Your task to perform on an android device: Search for a tv stand on Ikea Image 0: 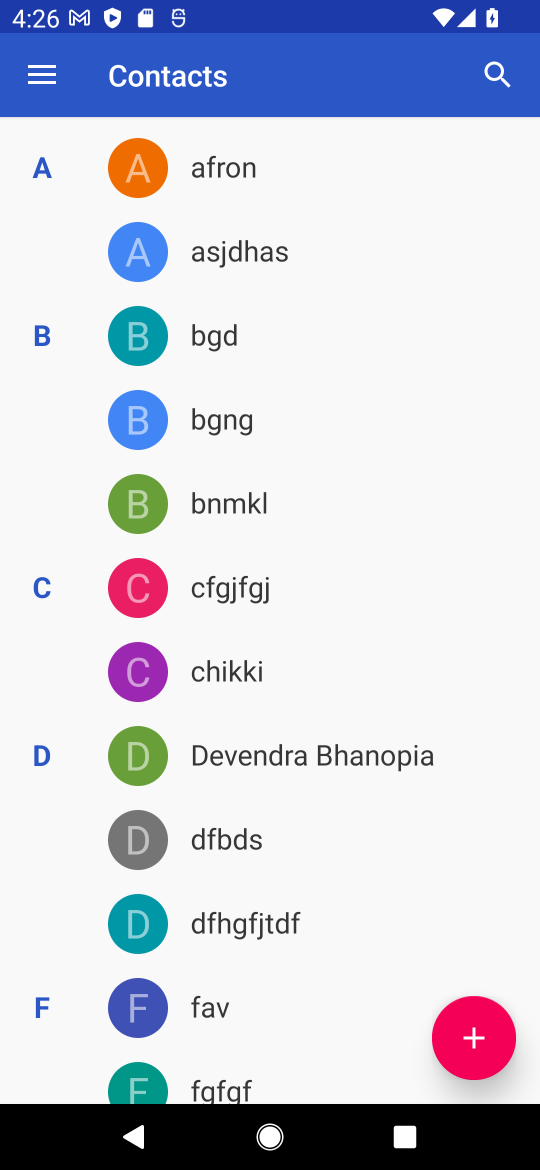
Step 0: press home button
Your task to perform on an android device: Search for a tv stand on Ikea Image 1: 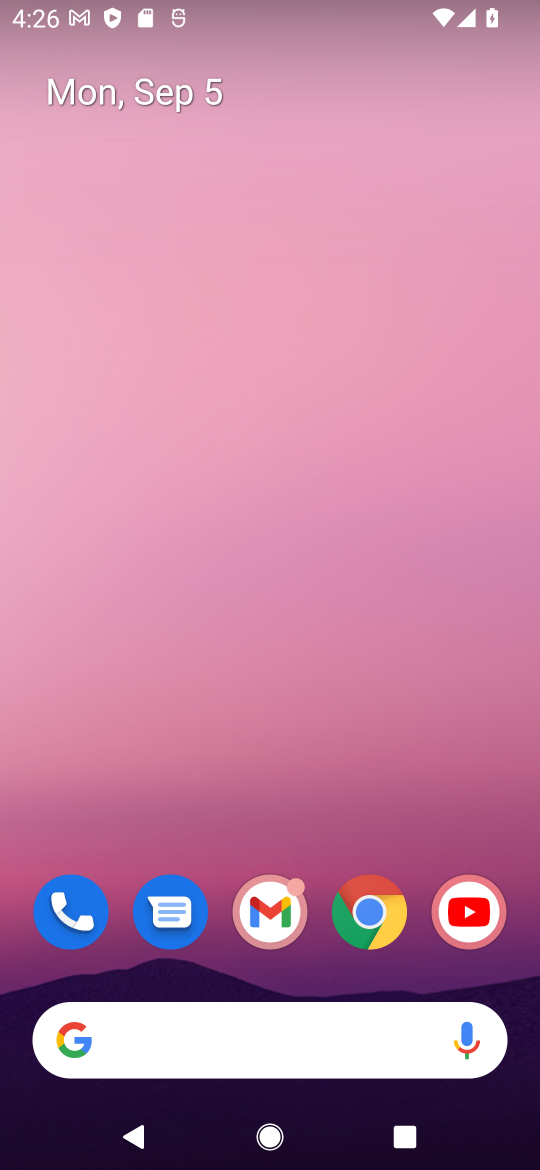
Step 1: click (371, 903)
Your task to perform on an android device: Search for a tv stand on Ikea Image 2: 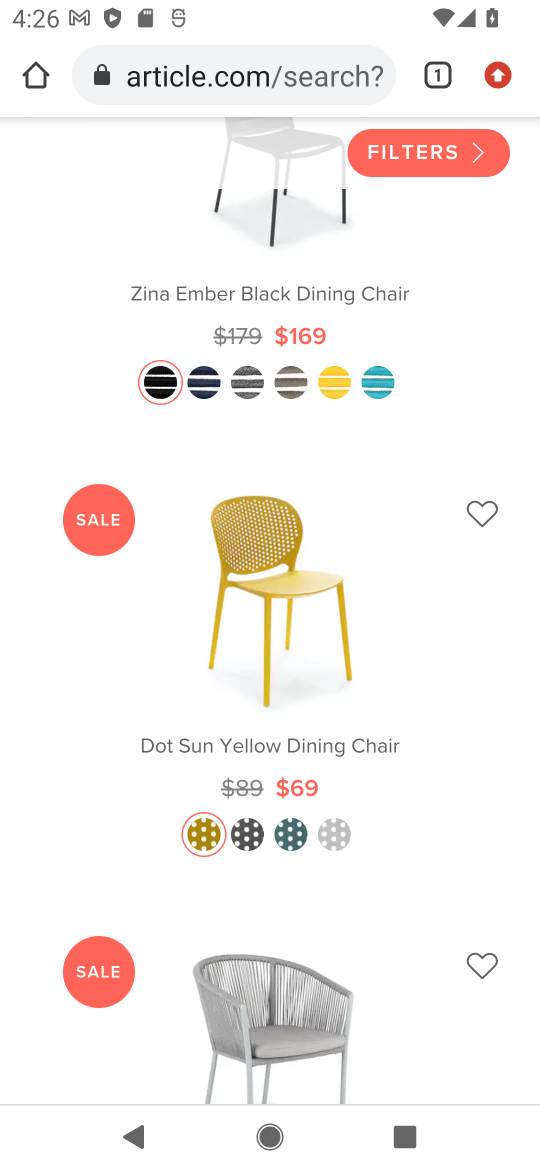
Step 2: click (293, 72)
Your task to perform on an android device: Search for a tv stand on Ikea Image 3: 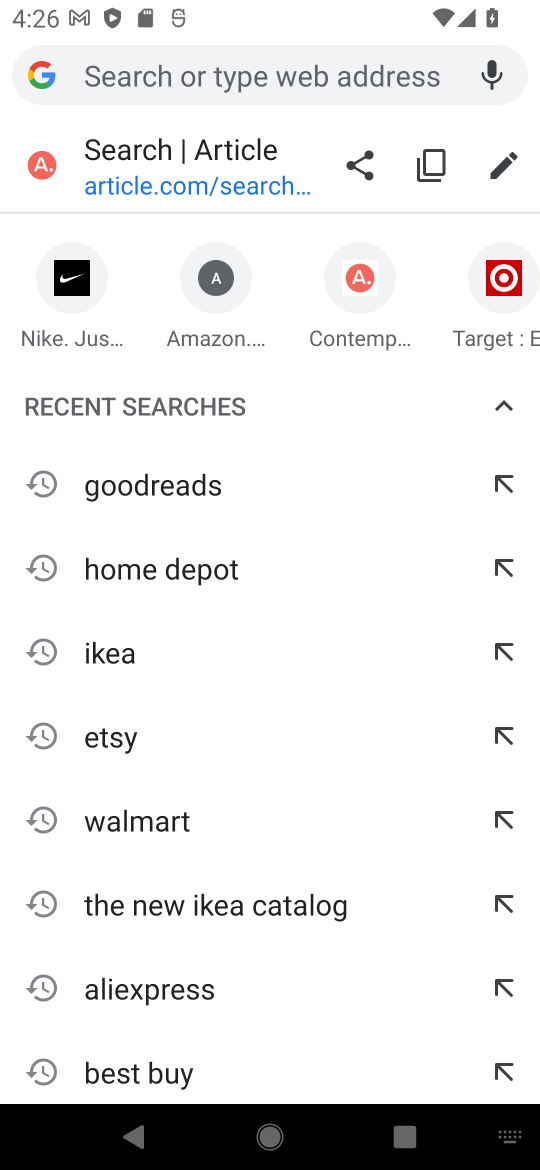
Step 3: type "ikea"
Your task to perform on an android device: Search for a tv stand on Ikea Image 4: 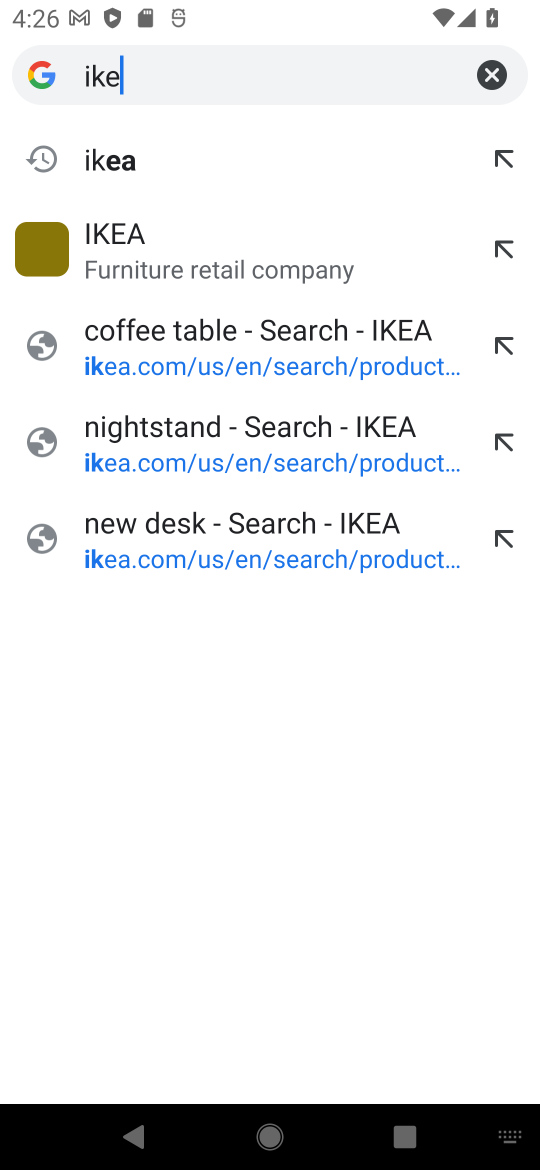
Step 4: type ""
Your task to perform on an android device: Search for a tv stand on Ikea Image 5: 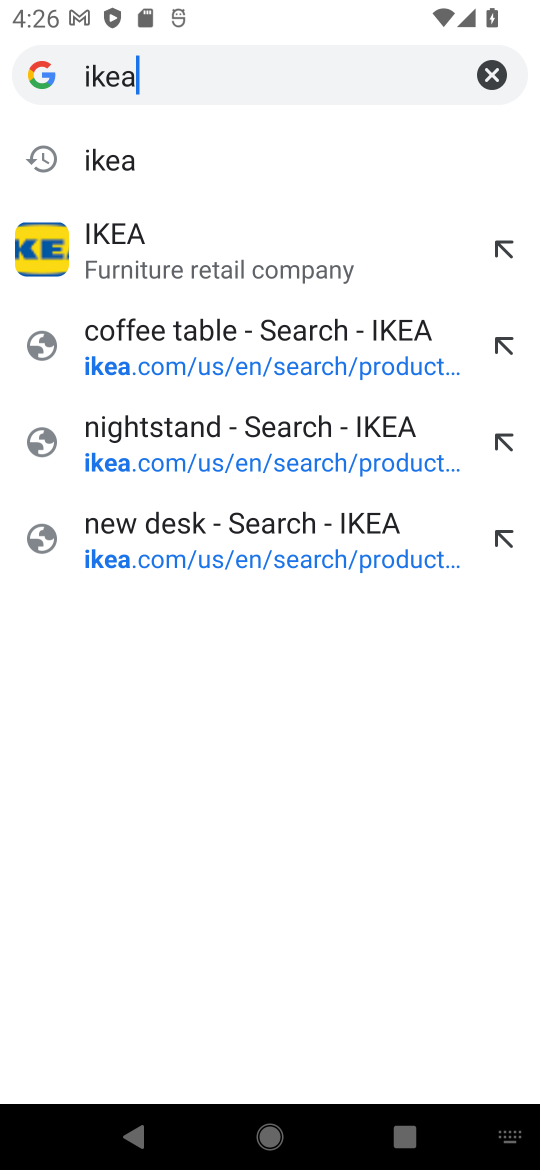
Step 5: press enter
Your task to perform on an android device: Search for a tv stand on Ikea Image 6: 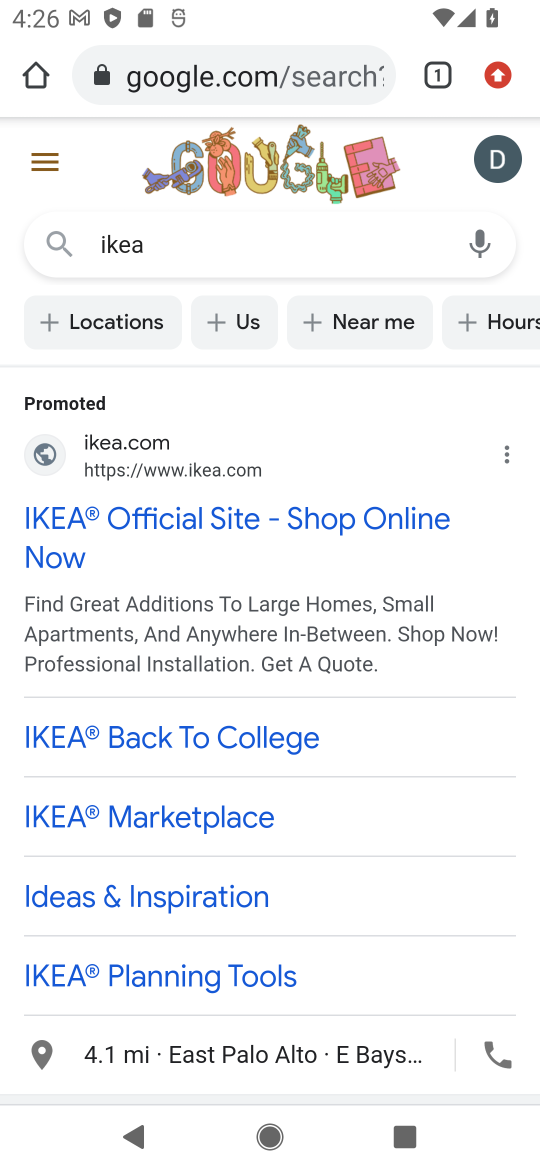
Step 6: click (239, 518)
Your task to perform on an android device: Search for a tv stand on Ikea Image 7: 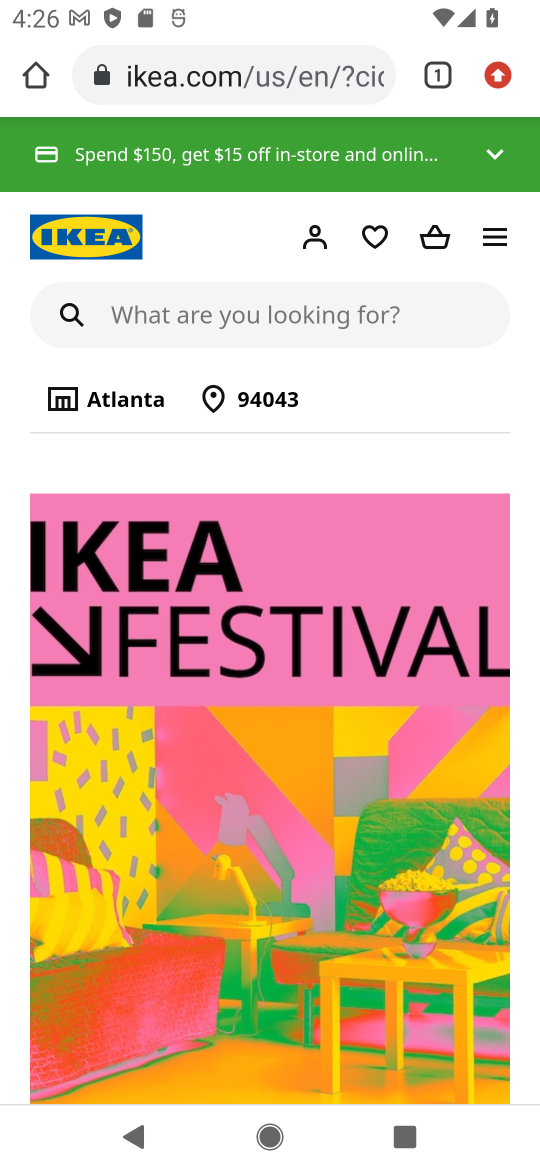
Step 7: click (315, 322)
Your task to perform on an android device: Search for a tv stand on Ikea Image 8: 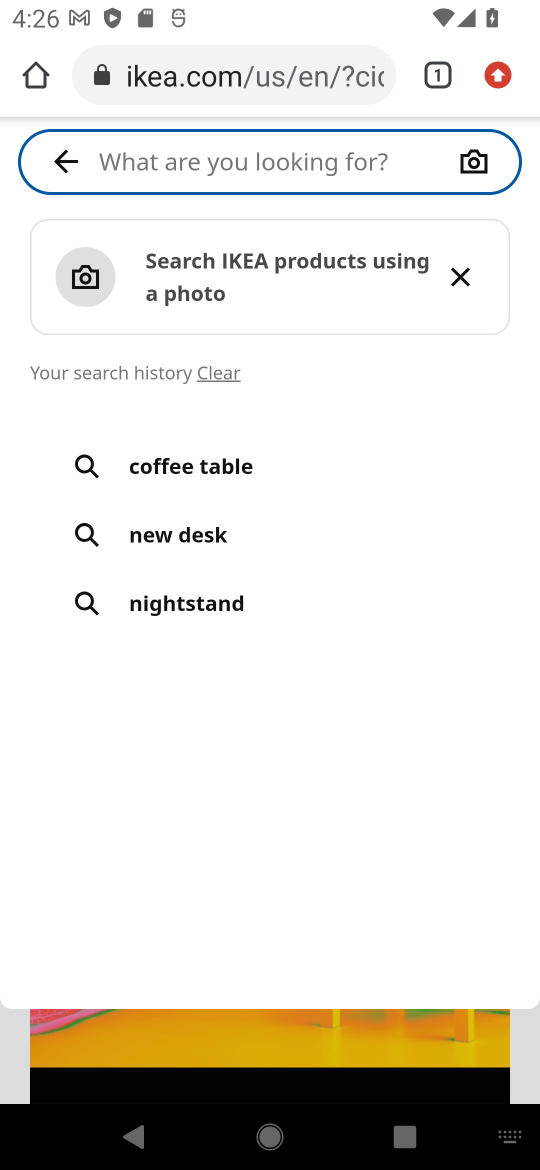
Step 8: type "tv stand"
Your task to perform on an android device: Search for a tv stand on Ikea Image 9: 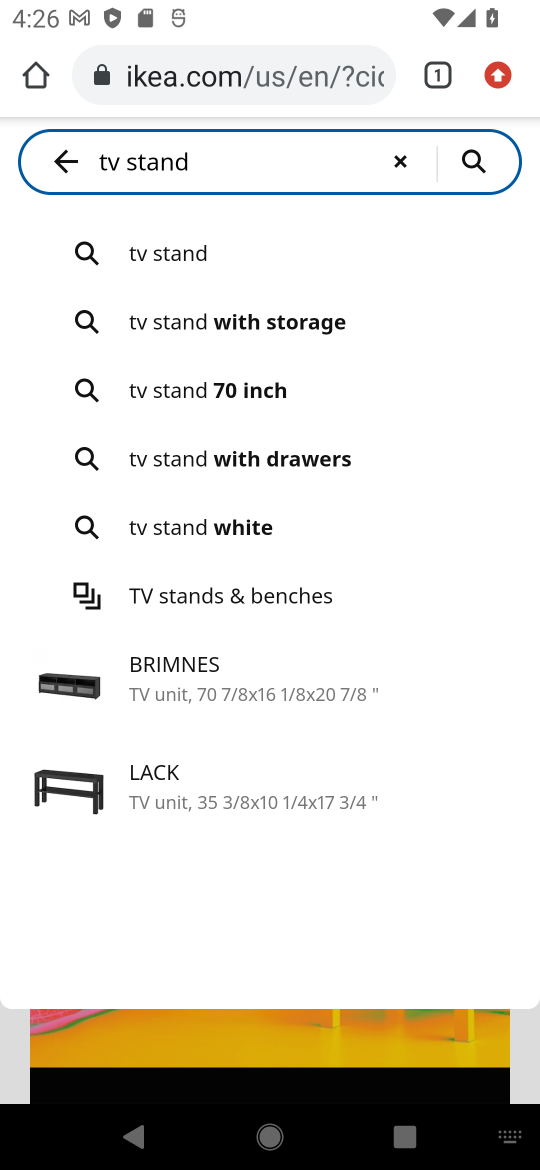
Step 9: press enter
Your task to perform on an android device: Search for a tv stand on Ikea Image 10: 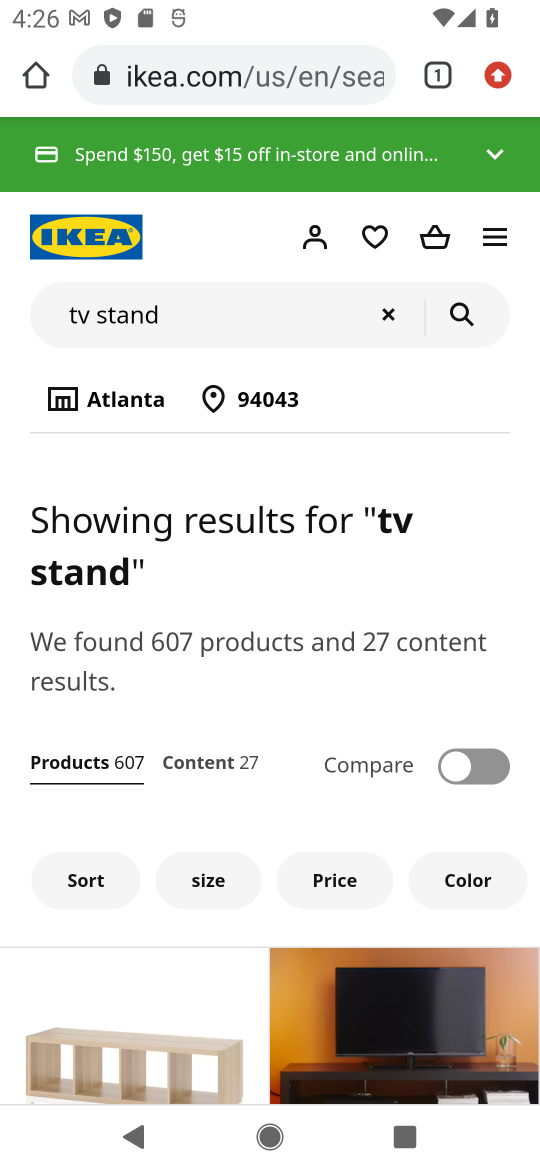
Step 10: click (249, 830)
Your task to perform on an android device: Search for a tv stand on Ikea Image 11: 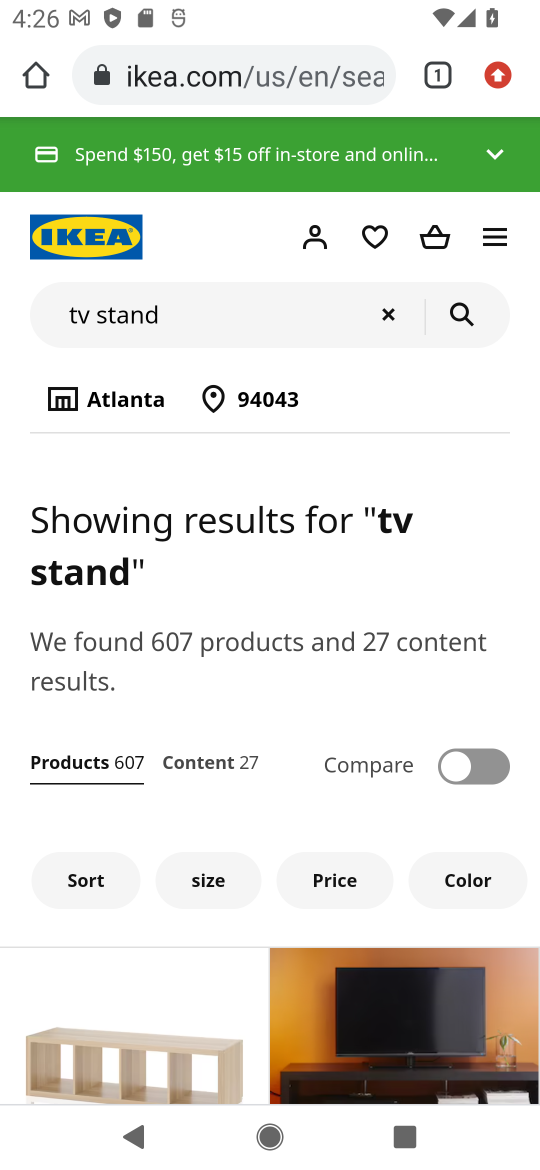
Step 11: drag from (383, 602) to (448, 243)
Your task to perform on an android device: Search for a tv stand on Ikea Image 12: 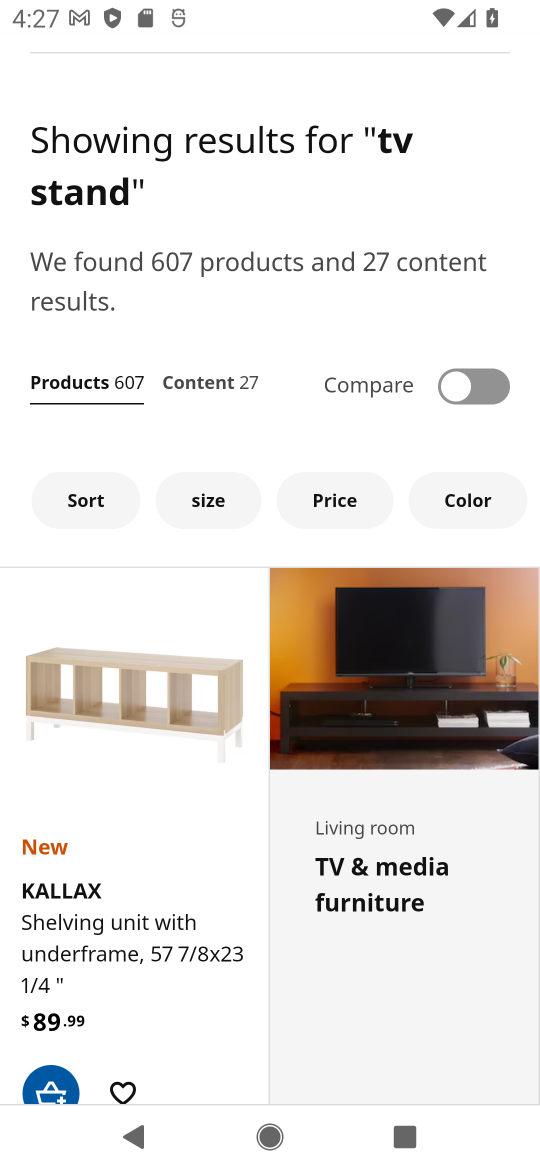
Step 12: click (260, 495)
Your task to perform on an android device: Search for a tv stand on Ikea Image 13: 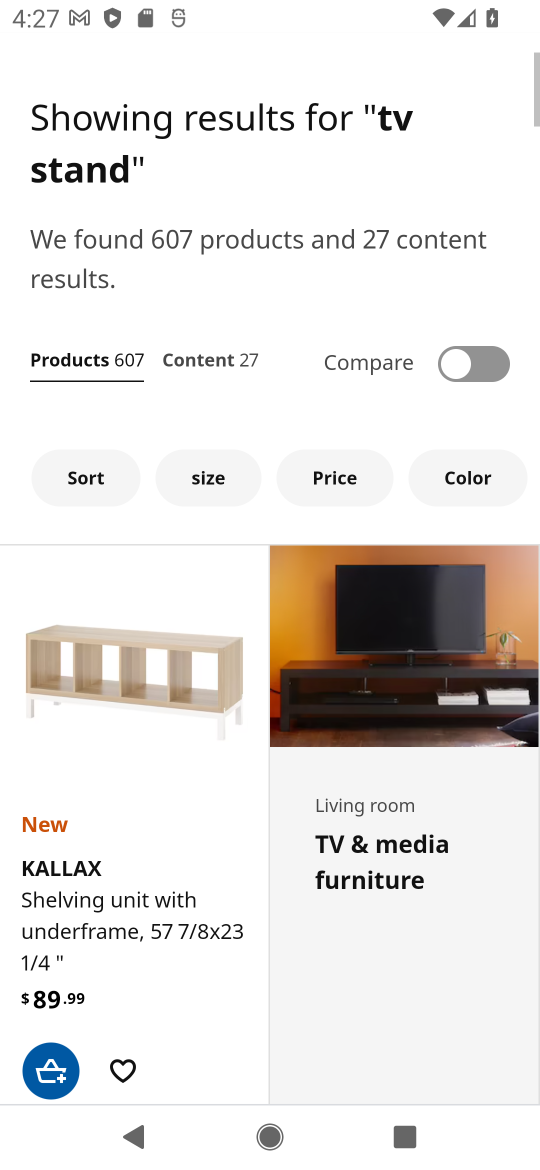
Step 13: task complete